Your task to perform on an android device: Open internet settings Image 0: 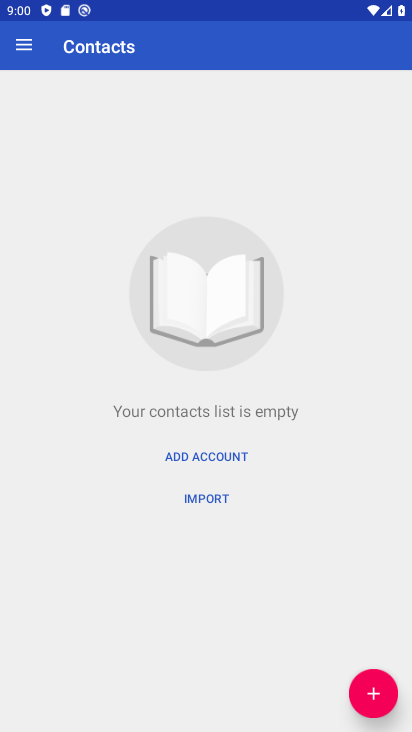
Step 0: press home button
Your task to perform on an android device: Open internet settings Image 1: 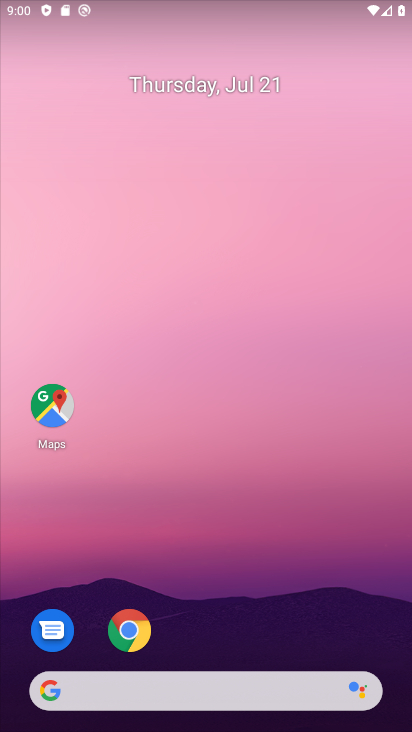
Step 1: drag from (201, 709) to (221, 112)
Your task to perform on an android device: Open internet settings Image 2: 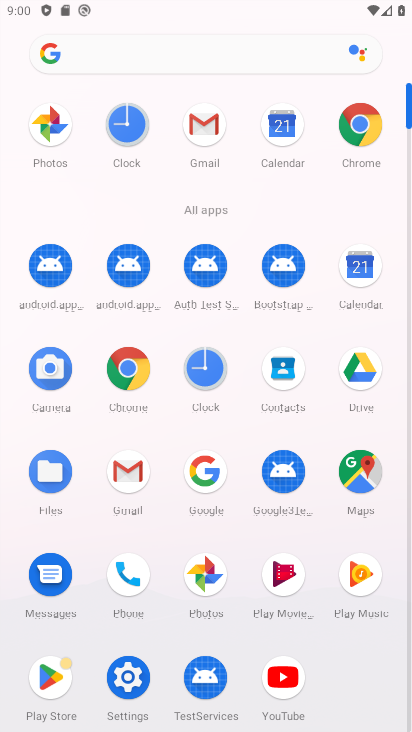
Step 2: click (131, 673)
Your task to perform on an android device: Open internet settings Image 3: 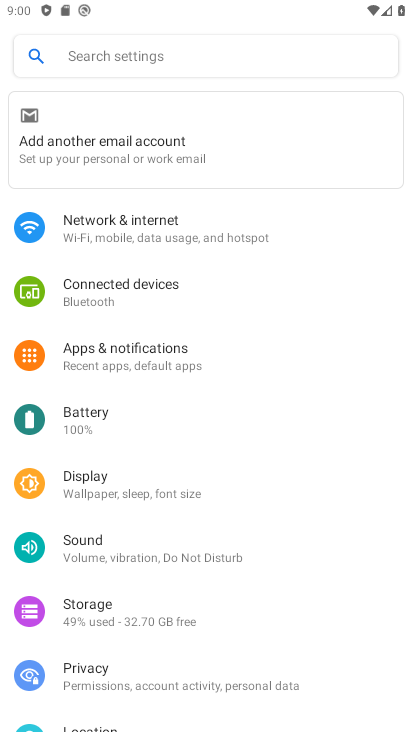
Step 3: click (123, 236)
Your task to perform on an android device: Open internet settings Image 4: 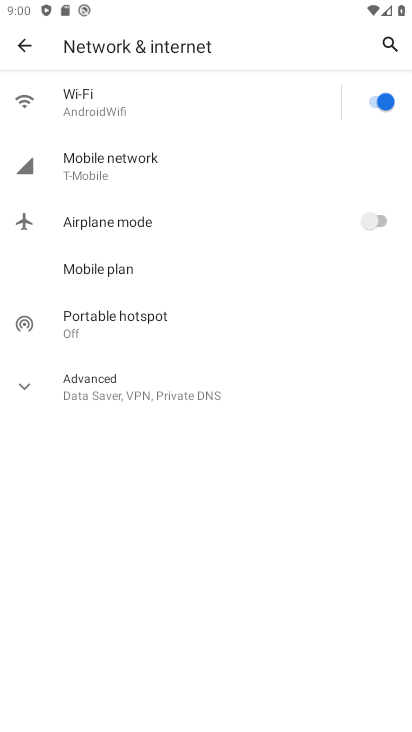
Step 4: task complete